Your task to perform on an android device: Open the Play Movies app and select the watchlist tab. Image 0: 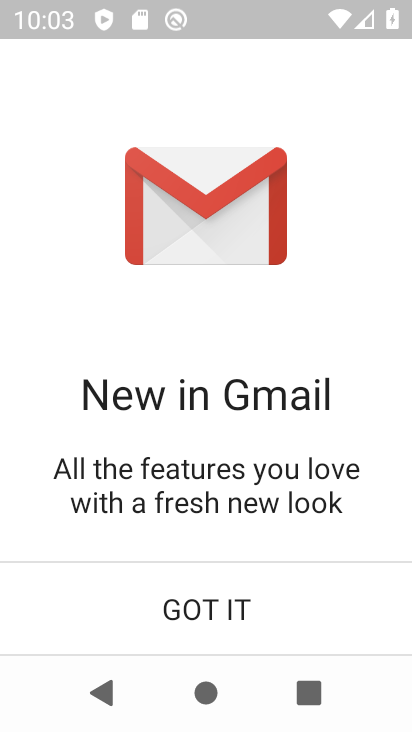
Step 0: press back button
Your task to perform on an android device: Open the Play Movies app and select the watchlist tab. Image 1: 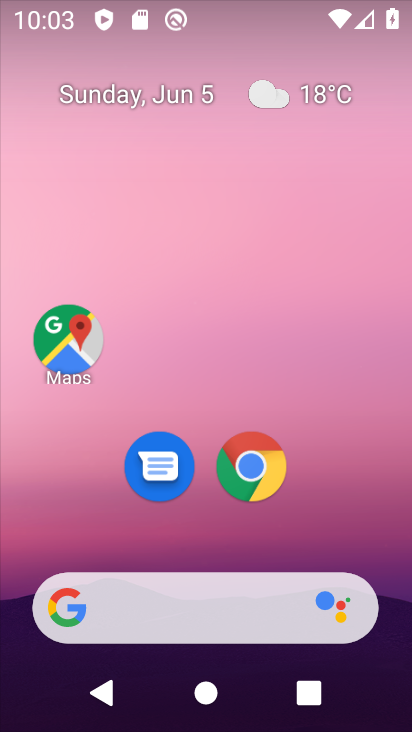
Step 1: drag from (342, 530) to (228, 71)
Your task to perform on an android device: Open the Play Movies app and select the watchlist tab. Image 2: 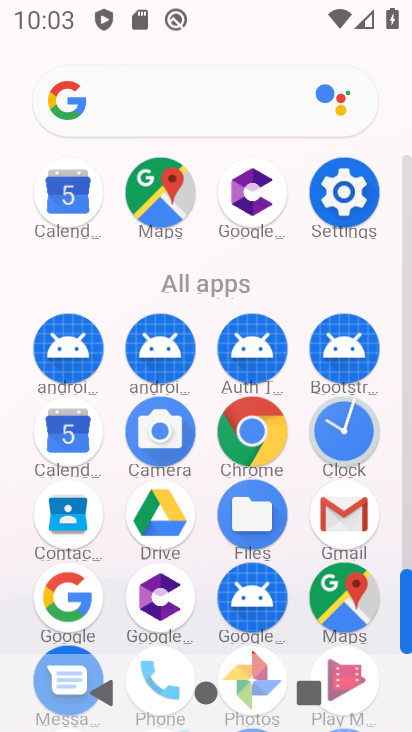
Step 2: drag from (304, 299) to (233, 35)
Your task to perform on an android device: Open the Play Movies app and select the watchlist tab. Image 3: 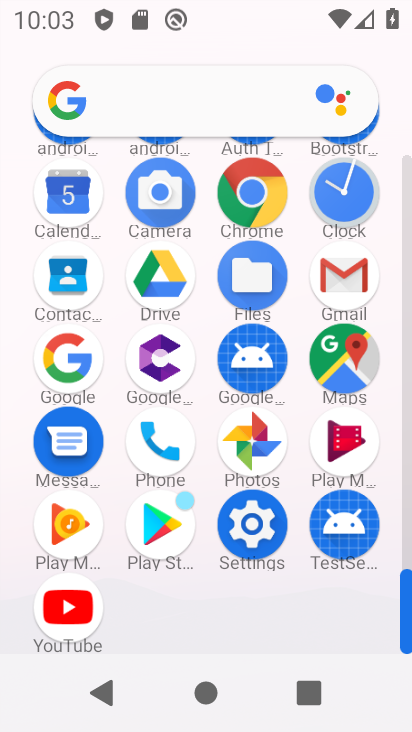
Step 3: click (347, 440)
Your task to perform on an android device: Open the Play Movies app and select the watchlist tab. Image 4: 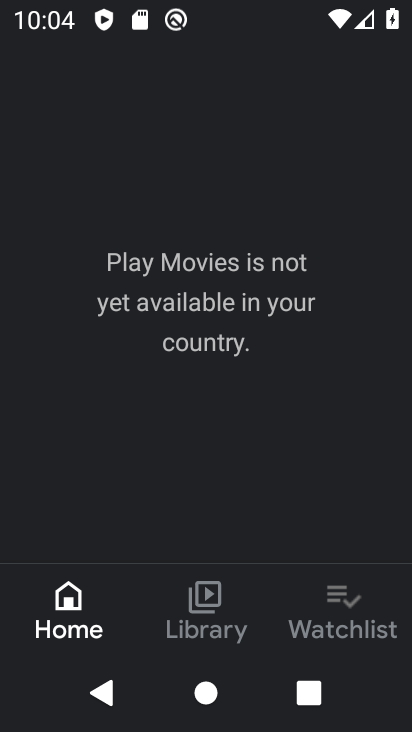
Step 4: click (343, 591)
Your task to perform on an android device: Open the Play Movies app and select the watchlist tab. Image 5: 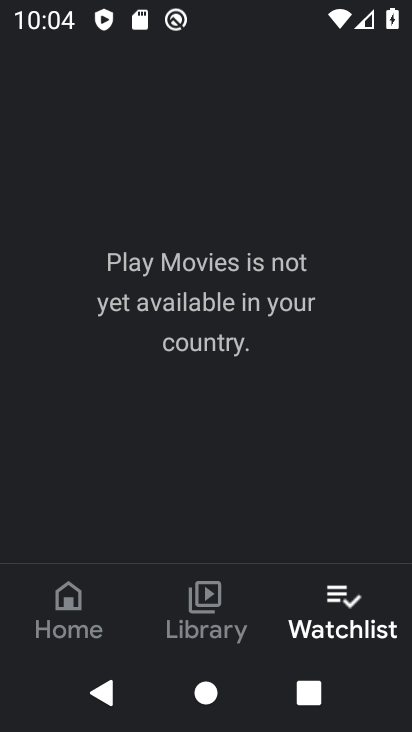
Step 5: task complete